Your task to perform on an android device: check the backup settings in the google photos Image 0: 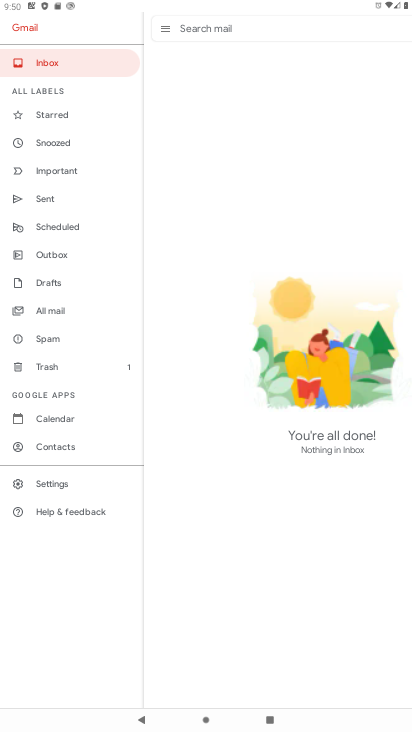
Step 0: press home button
Your task to perform on an android device: check the backup settings in the google photos Image 1: 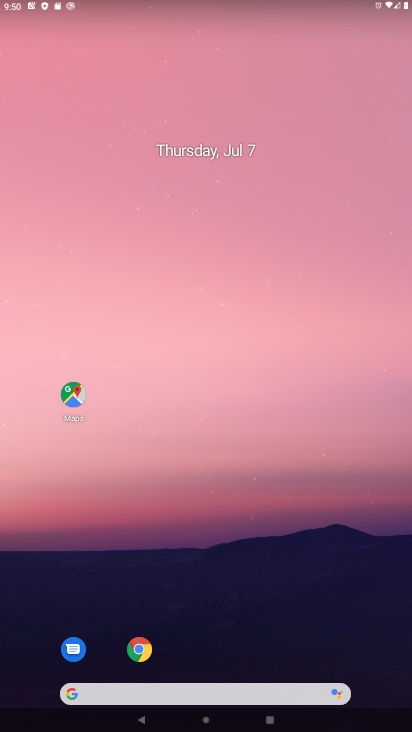
Step 1: click (233, 673)
Your task to perform on an android device: check the backup settings in the google photos Image 2: 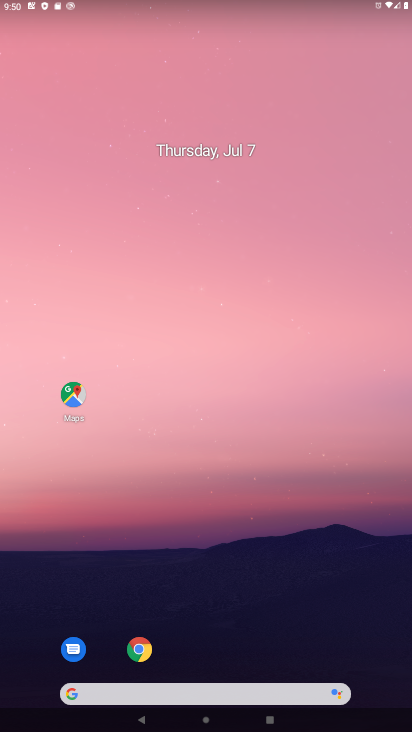
Step 2: click (283, 224)
Your task to perform on an android device: check the backup settings in the google photos Image 3: 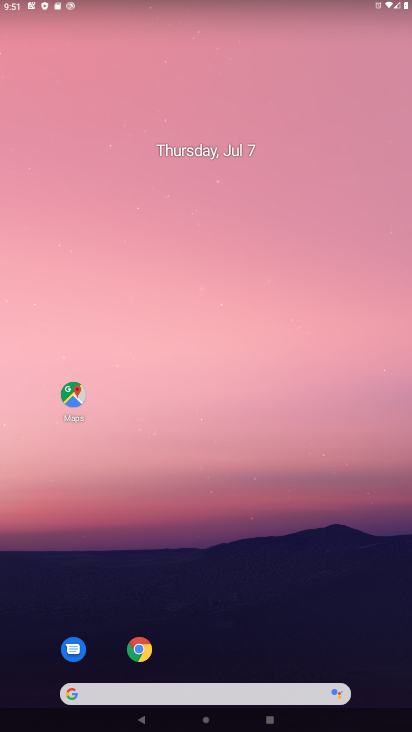
Step 3: drag from (227, 703) to (206, 28)
Your task to perform on an android device: check the backup settings in the google photos Image 4: 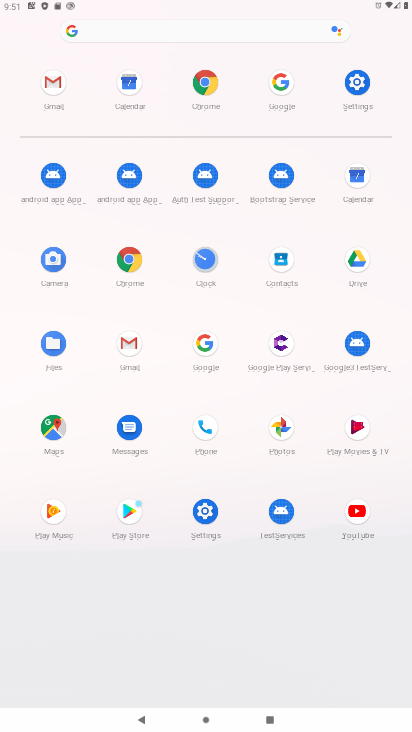
Step 4: click (282, 429)
Your task to perform on an android device: check the backup settings in the google photos Image 5: 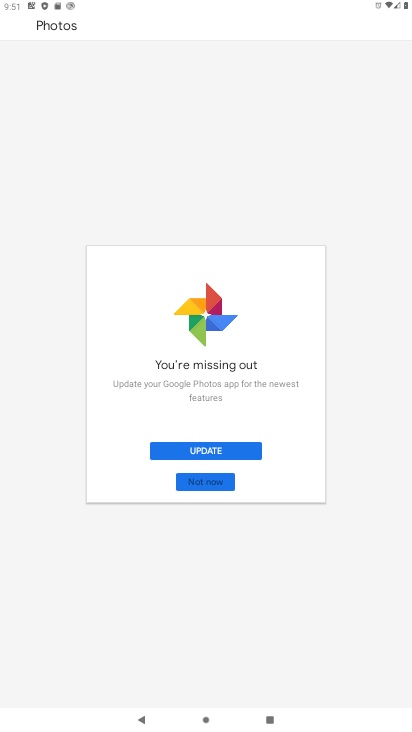
Step 5: press home button
Your task to perform on an android device: check the backup settings in the google photos Image 6: 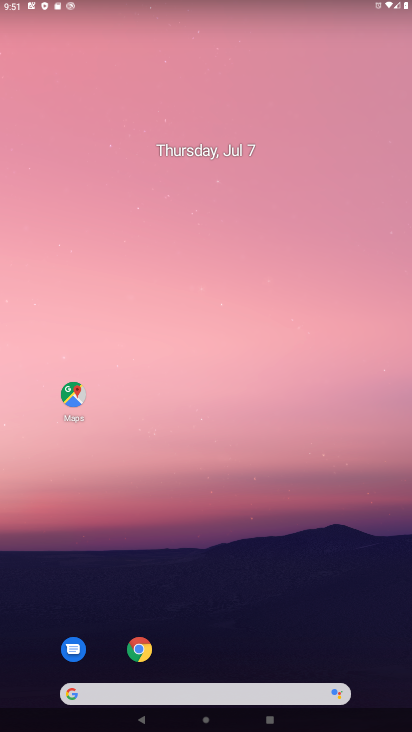
Step 6: drag from (233, 709) to (233, 587)
Your task to perform on an android device: check the backup settings in the google photos Image 7: 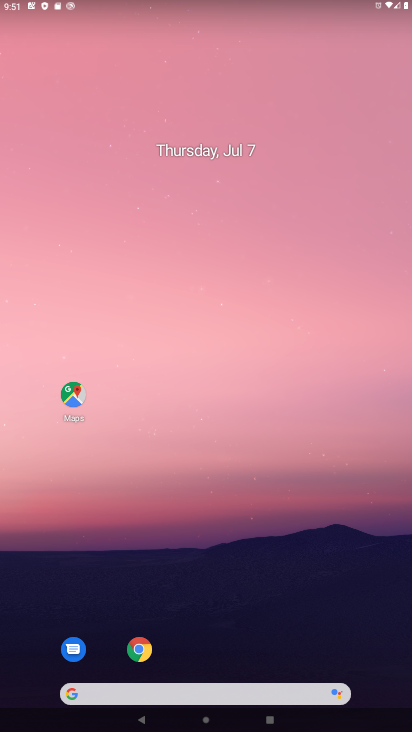
Step 7: drag from (233, 293) to (229, 142)
Your task to perform on an android device: check the backup settings in the google photos Image 8: 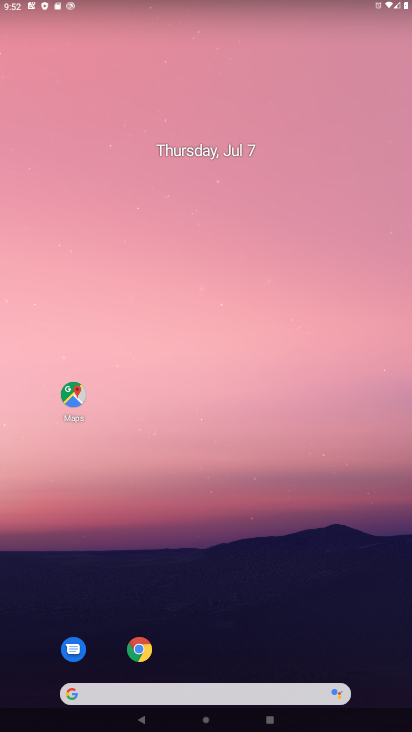
Step 8: drag from (223, 717) to (253, 3)
Your task to perform on an android device: check the backup settings in the google photos Image 9: 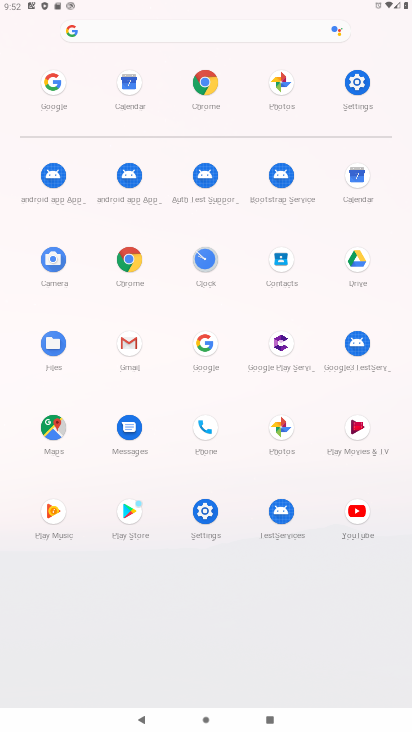
Step 9: click (283, 86)
Your task to perform on an android device: check the backup settings in the google photos Image 10: 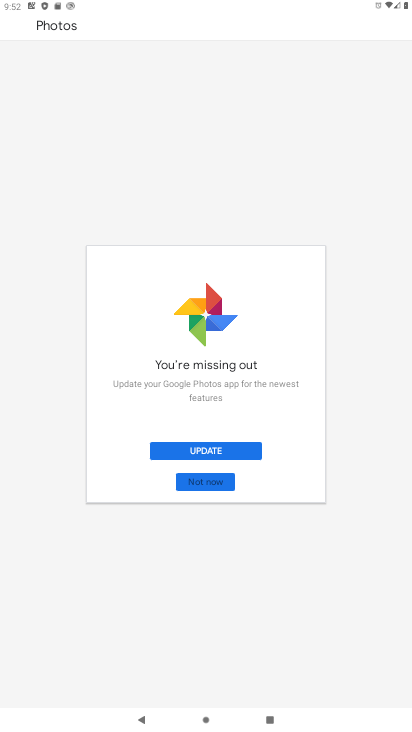
Step 10: click (209, 476)
Your task to perform on an android device: check the backup settings in the google photos Image 11: 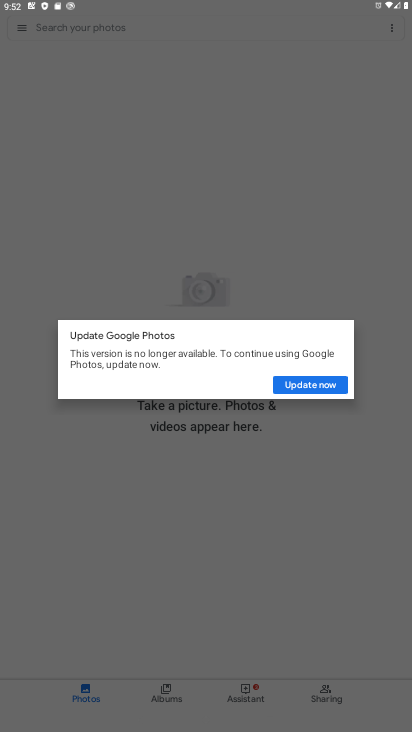
Step 11: task complete